Your task to perform on an android device: all mails in gmail Image 0: 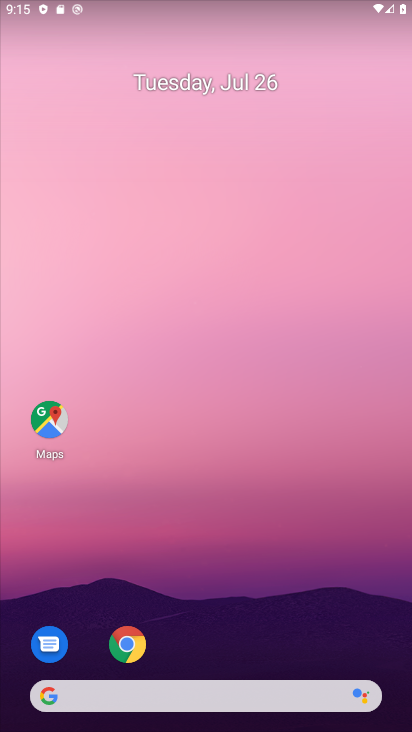
Step 0: drag from (211, 646) to (179, 184)
Your task to perform on an android device: all mails in gmail Image 1: 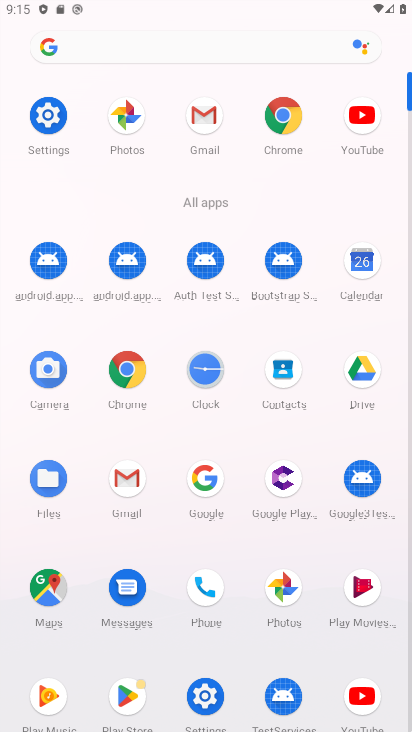
Step 1: click (124, 485)
Your task to perform on an android device: all mails in gmail Image 2: 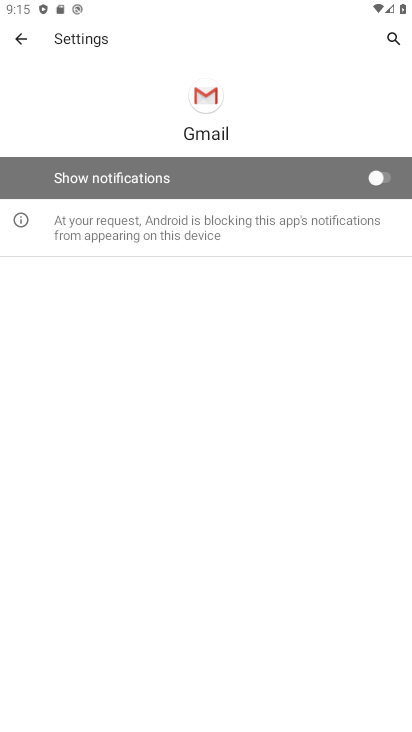
Step 2: click (22, 33)
Your task to perform on an android device: all mails in gmail Image 3: 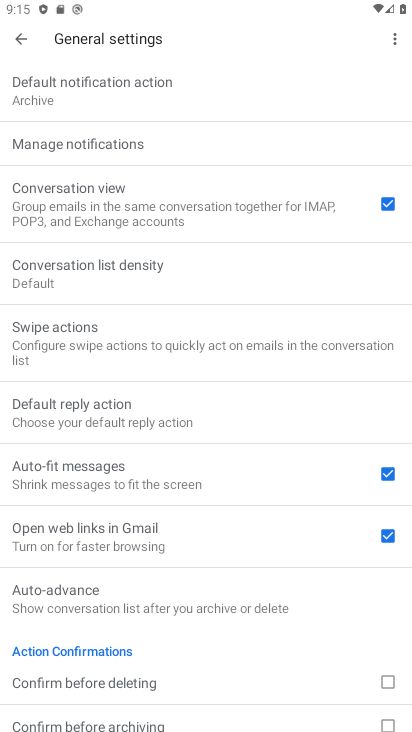
Step 3: click (25, 34)
Your task to perform on an android device: all mails in gmail Image 4: 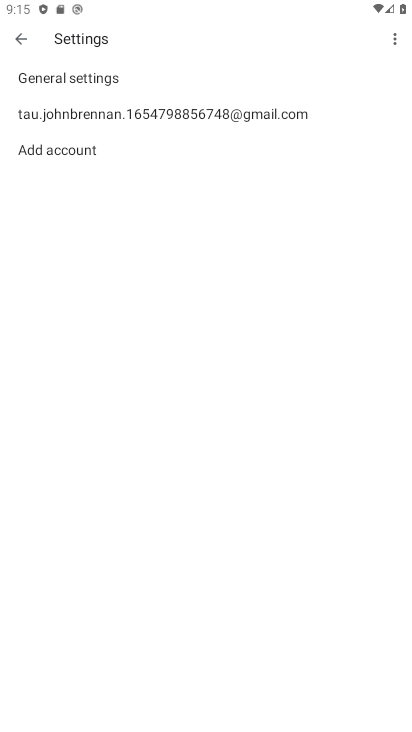
Step 4: click (26, 38)
Your task to perform on an android device: all mails in gmail Image 5: 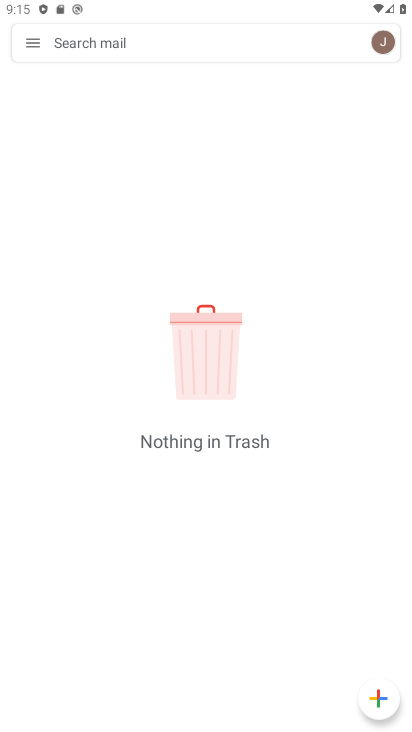
Step 5: click (40, 40)
Your task to perform on an android device: all mails in gmail Image 6: 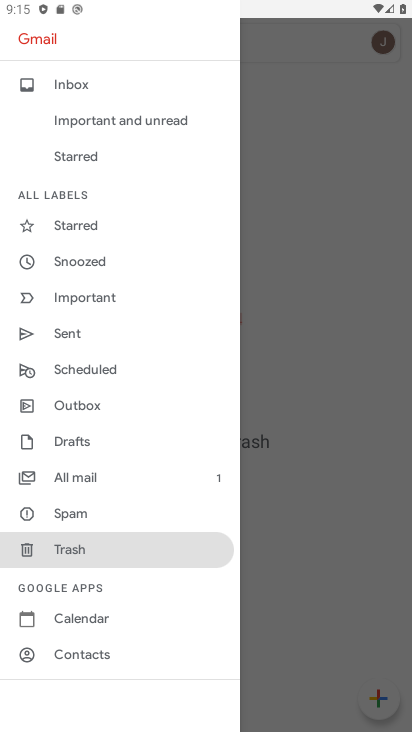
Step 6: click (93, 482)
Your task to perform on an android device: all mails in gmail Image 7: 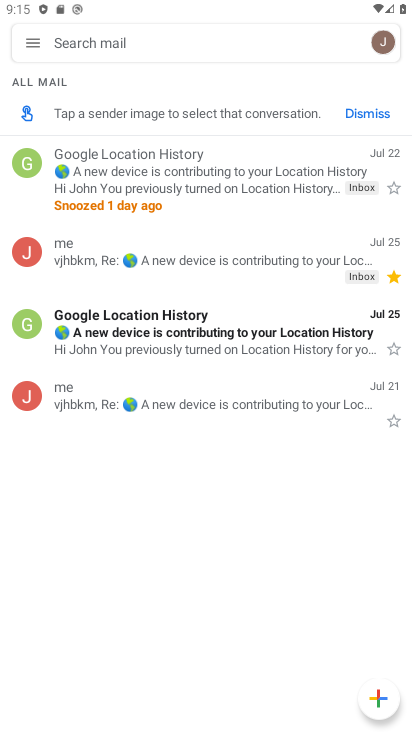
Step 7: task complete